Your task to perform on an android device: see sites visited before in the chrome app Image 0: 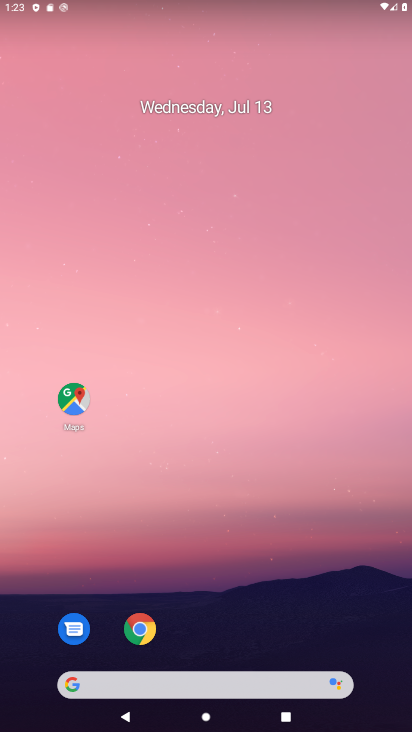
Step 0: click (133, 645)
Your task to perform on an android device: see sites visited before in the chrome app Image 1: 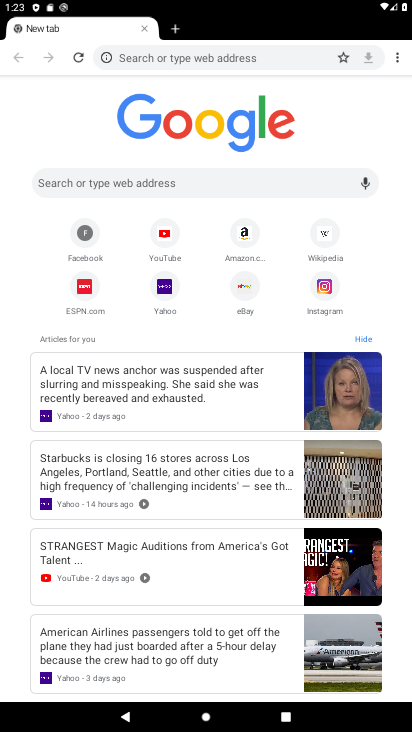
Step 1: click (402, 61)
Your task to perform on an android device: see sites visited before in the chrome app Image 2: 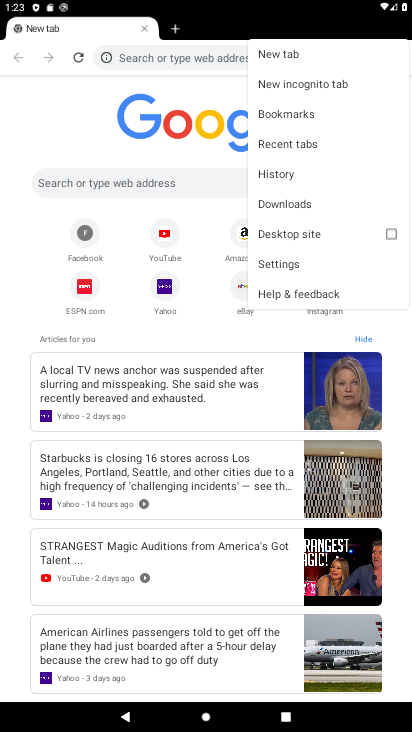
Step 2: click (288, 258)
Your task to perform on an android device: see sites visited before in the chrome app Image 3: 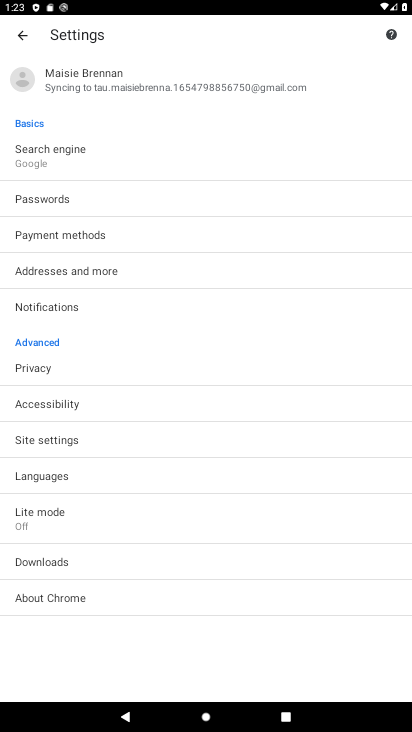
Step 3: click (151, 448)
Your task to perform on an android device: see sites visited before in the chrome app Image 4: 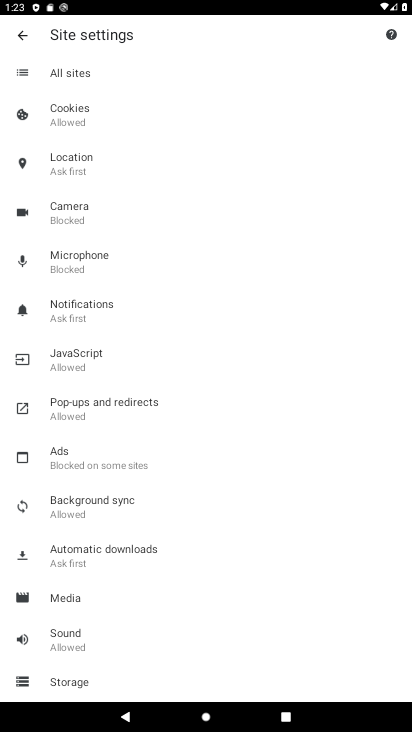
Step 4: click (22, 39)
Your task to perform on an android device: see sites visited before in the chrome app Image 5: 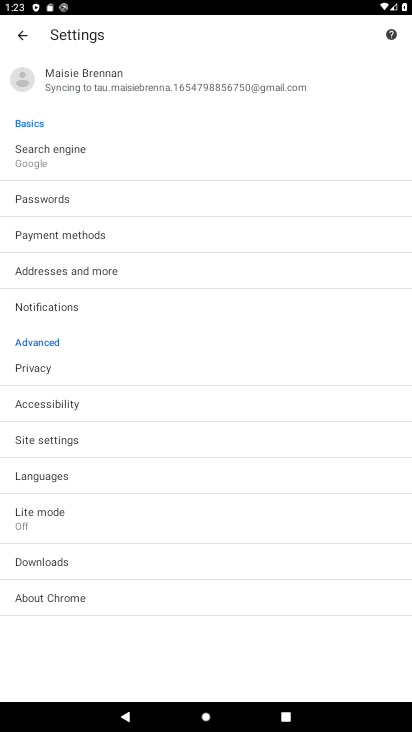
Step 5: click (22, 39)
Your task to perform on an android device: see sites visited before in the chrome app Image 6: 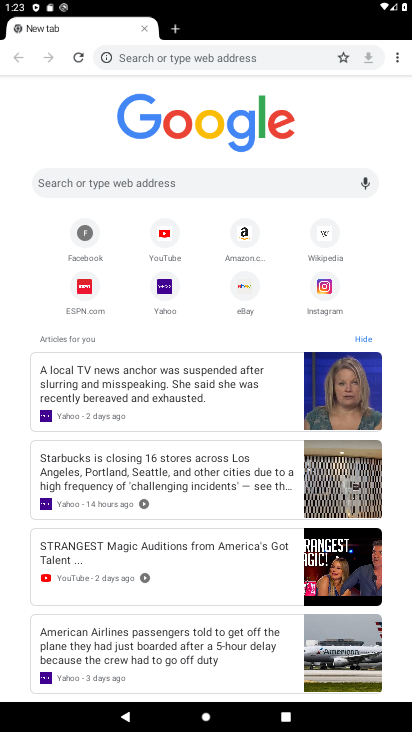
Step 6: click (403, 55)
Your task to perform on an android device: see sites visited before in the chrome app Image 7: 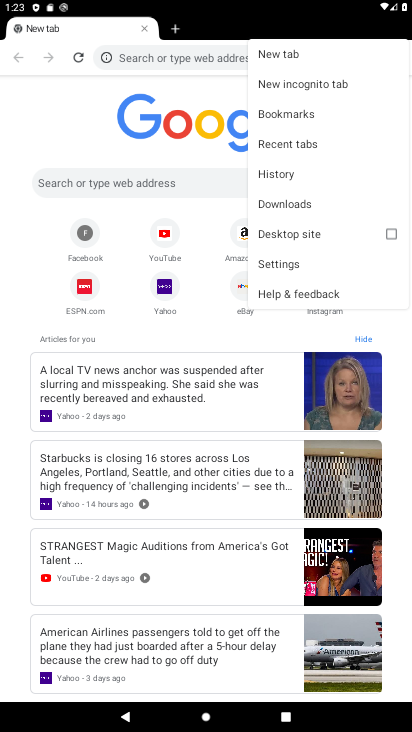
Step 7: click (301, 133)
Your task to perform on an android device: see sites visited before in the chrome app Image 8: 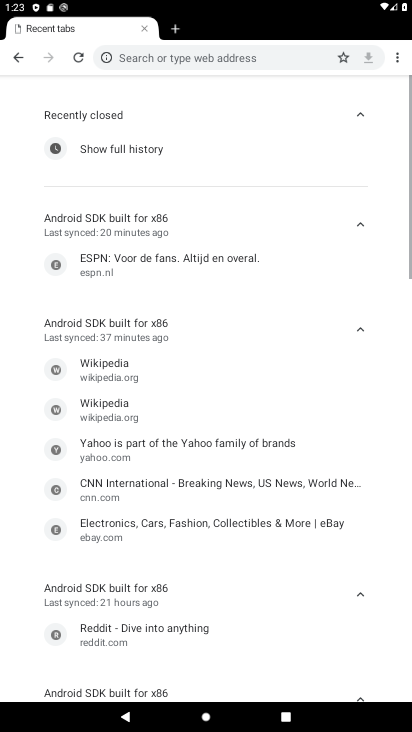
Step 8: task complete